Your task to perform on an android device: Show me the alarms in the clock app Image 0: 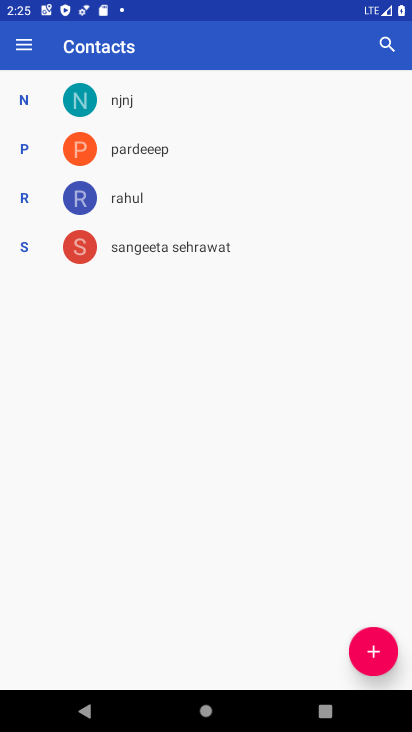
Step 0: press home button
Your task to perform on an android device: Show me the alarms in the clock app Image 1: 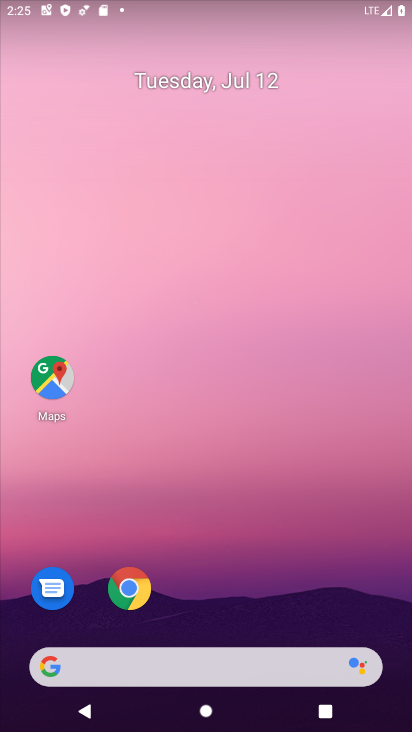
Step 1: drag from (143, 702) to (170, 141)
Your task to perform on an android device: Show me the alarms in the clock app Image 2: 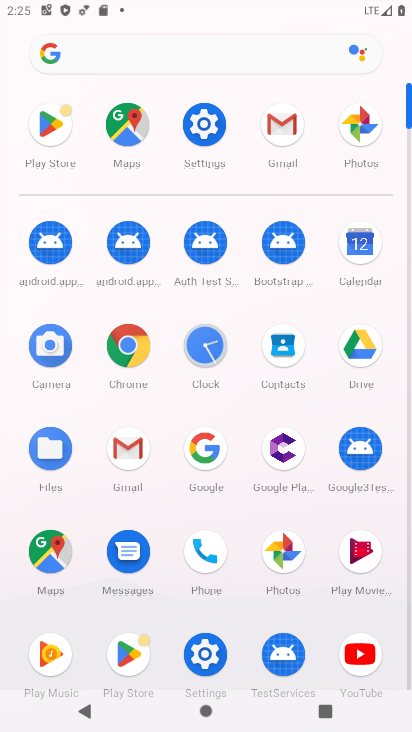
Step 2: click (210, 344)
Your task to perform on an android device: Show me the alarms in the clock app Image 3: 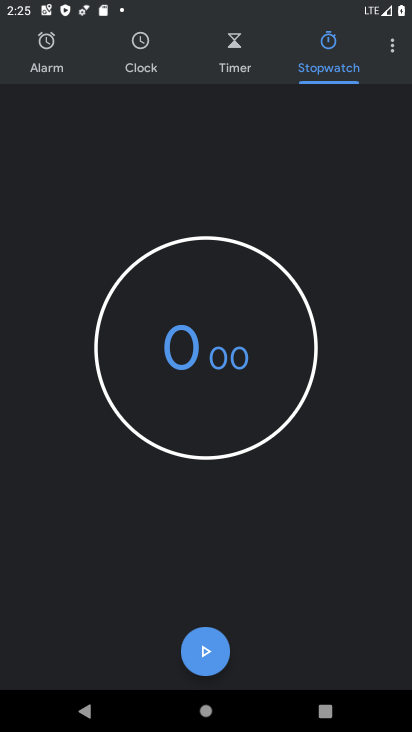
Step 3: click (51, 59)
Your task to perform on an android device: Show me the alarms in the clock app Image 4: 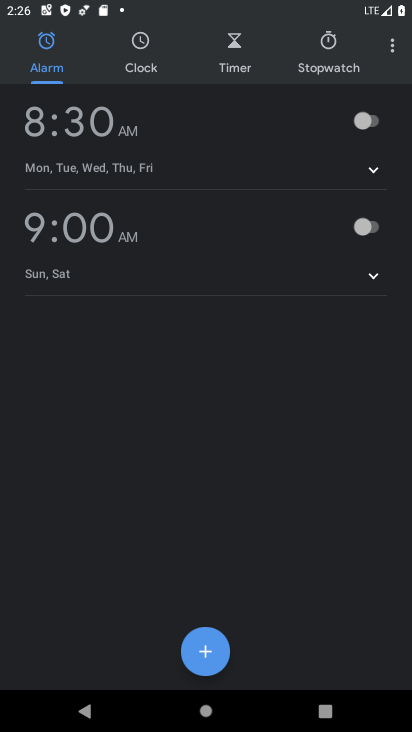
Step 4: task complete